Your task to perform on an android device: turn on wifi Image 0: 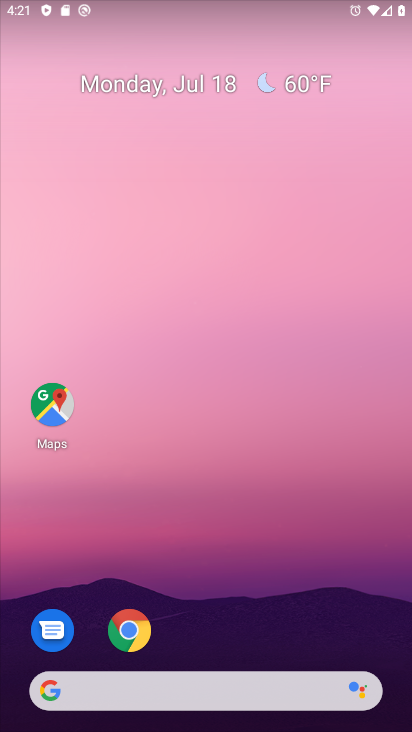
Step 0: drag from (218, 565) to (159, 34)
Your task to perform on an android device: turn on wifi Image 1: 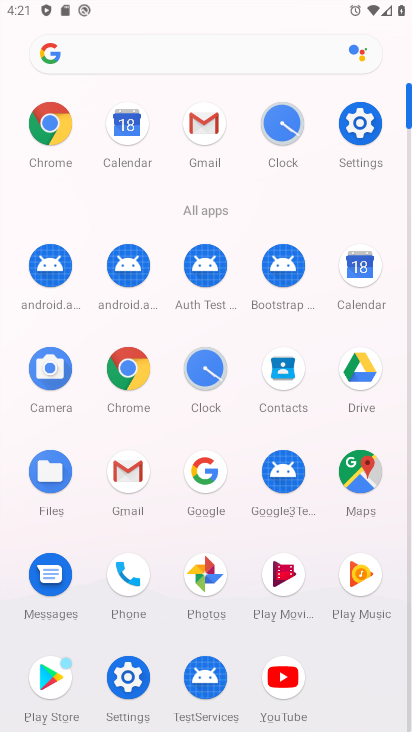
Step 1: click (360, 119)
Your task to perform on an android device: turn on wifi Image 2: 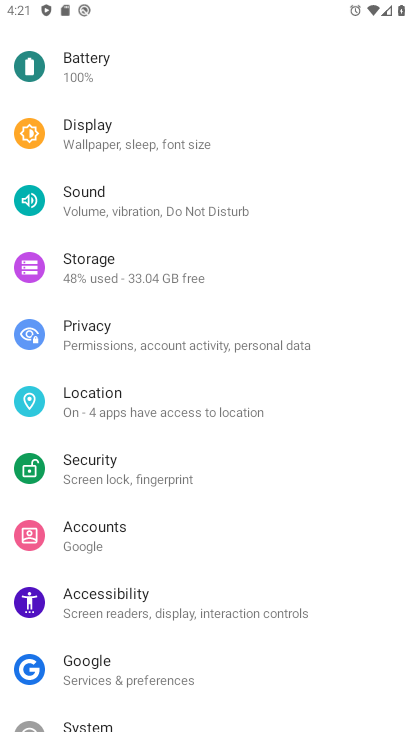
Step 2: drag from (247, 177) to (315, 585)
Your task to perform on an android device: turn on wifi Image 3: 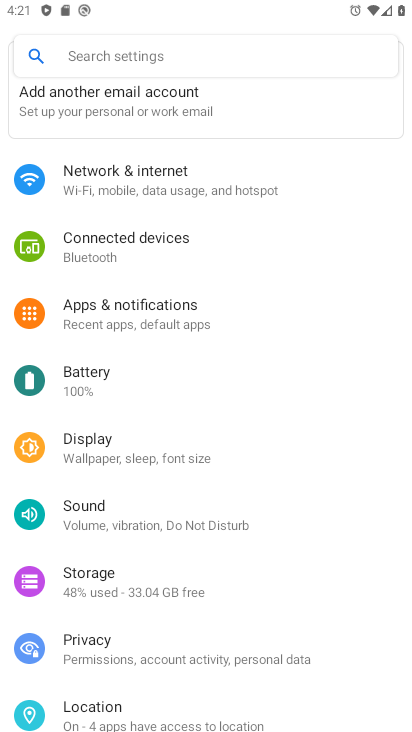
Step 3: click (127, 174)
Your task to perform on an android device: turn on wifi Image 4: 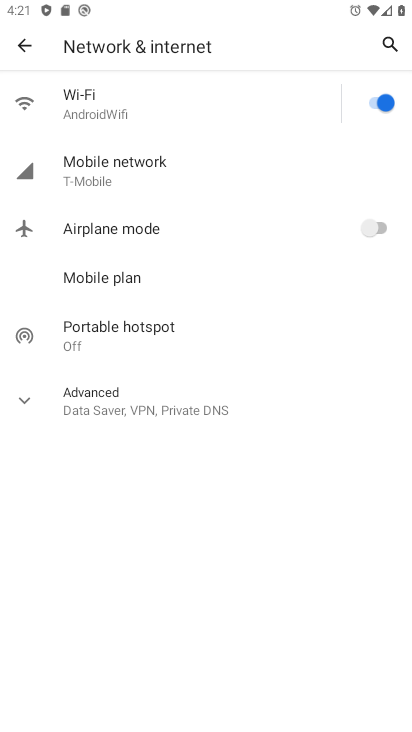
Step 4: task complete